Your task to perform on an android device: Do I have any events tomorrow? Image 0: 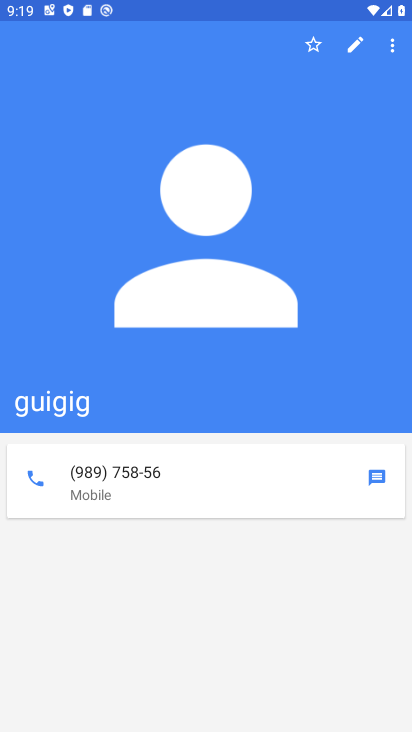
Step 0: press home button
Your task to perform on an android device: Do I have any events tomorrow? Image 1: 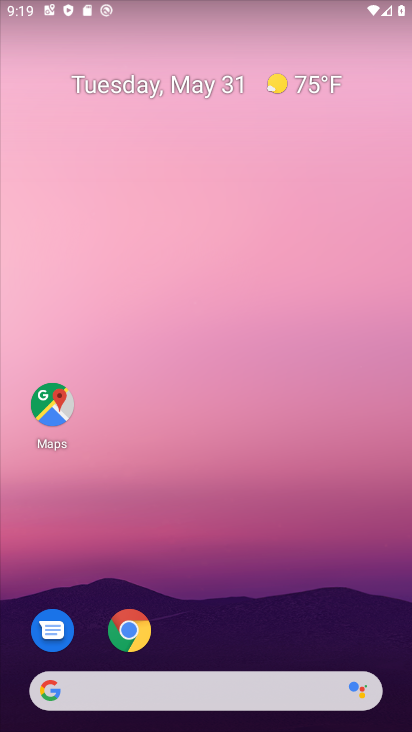
Step 1: drag from (269, 641) to (388, 155)
Your task to perform on an android device: Do I have any events tomorrow? Image 2: 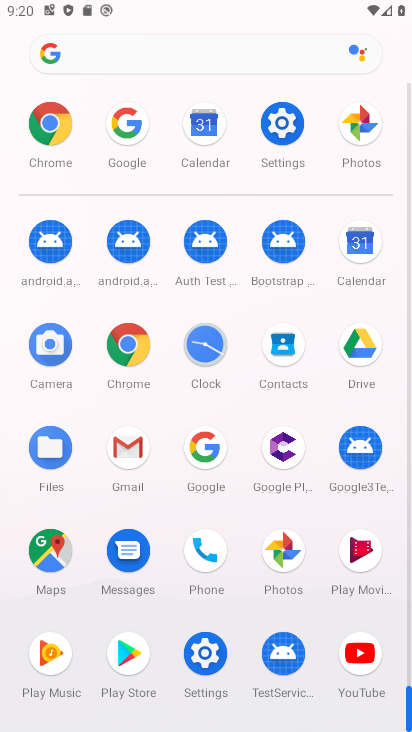
Step 2: click (368, 256)
Your task to perform on an android device: Do I have any events tomorrow? Image 3: 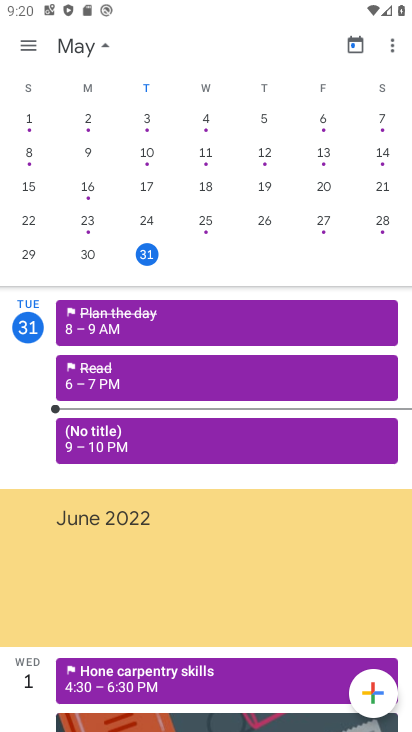
Step 3: drag from (329, 193) to (6, 201)
Your task to perform on an android device: Do I have any events tomorrow? Image 4: 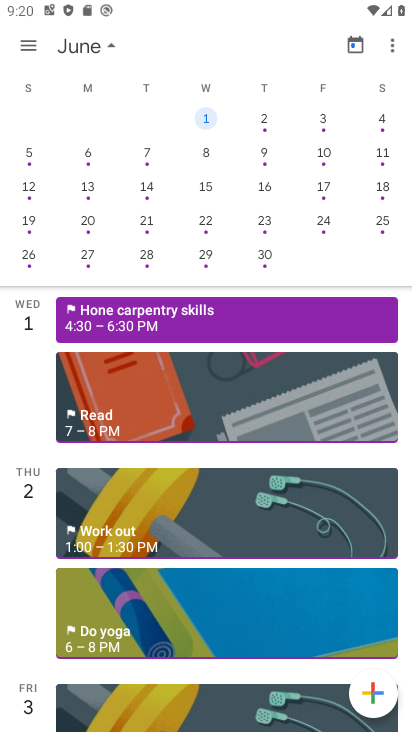
Step 4: click (204, 122)
Your task to perform on an android device: Do I have any events tomorrow? Image 5: 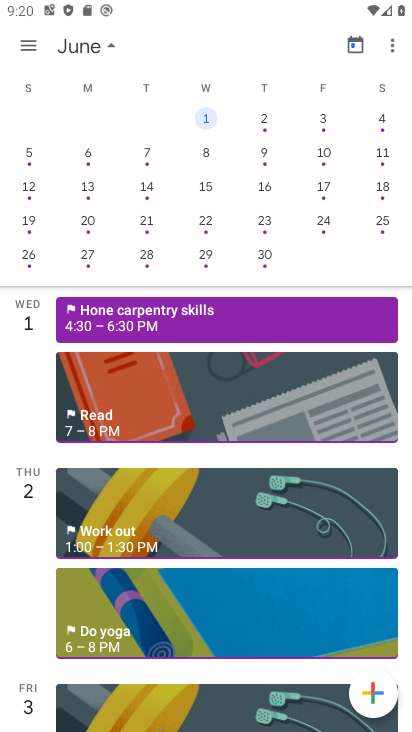
Step 5: task complete